Your task to perform on an android device: change text size in settings app Image 0: 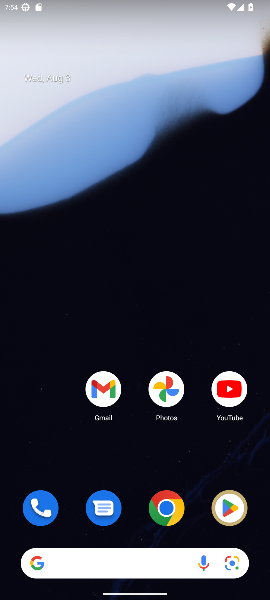
Step 0: drag from (146, 523) to (159, 17)
Your task to perform on an android device: change text size in settings app Image 1: 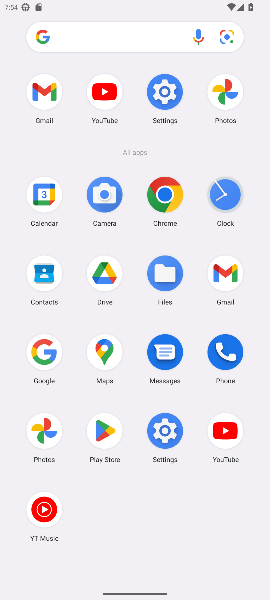
Step 1: click (157, 426)
Your task to perform on an android device: change text size in settings app Image 2: 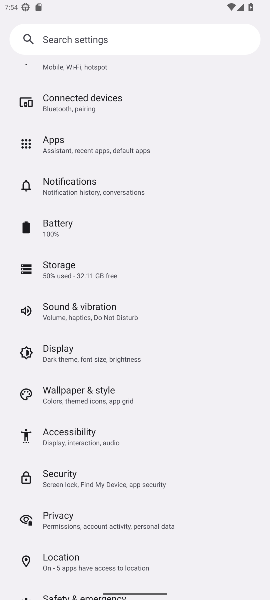
Step 2: click (66, 358)
Your task to perform on an android device: change text size in settings app Image 3: 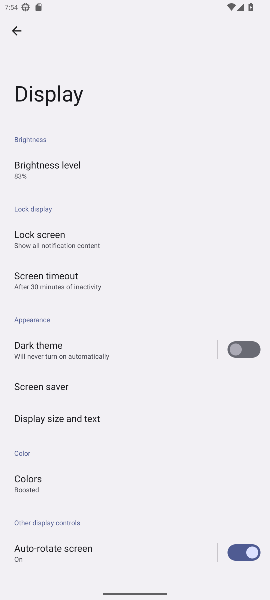
Step 3: drag from (84, 436) to (71, 206)
Your task to perform on an android device: change text size in settings app Image 4: 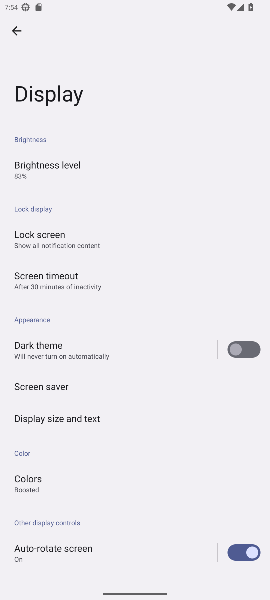
Step 4: click (28, 422)
Your task to perform on an android device: change text size in settings app Image 5: 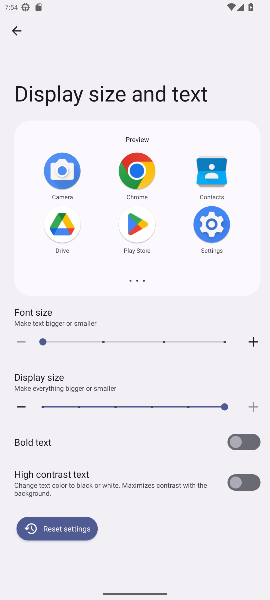
Step 5: click (103, 342)
Your task to perform on an android device: change text size in settings app Image 6: 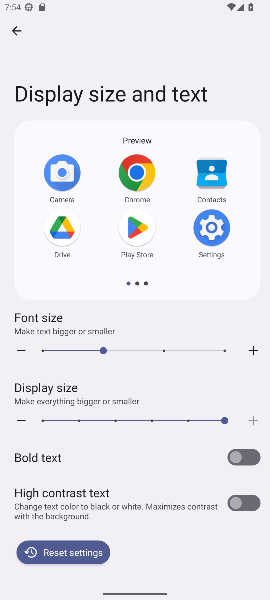
Step 6: task complete